Your task to perform on an android device: Do I have any events this weekend? Image 0: 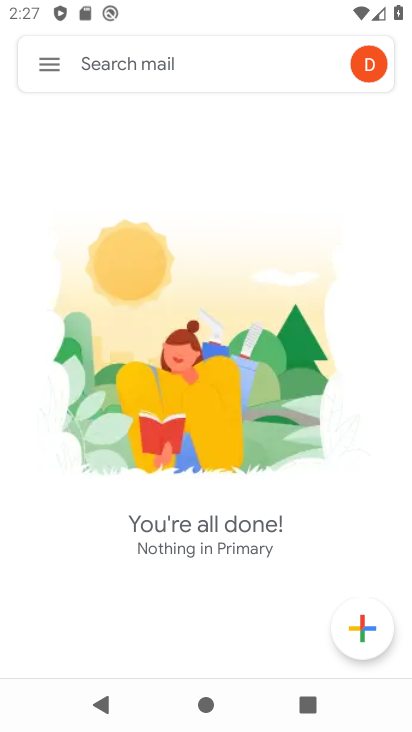
Step 0: press home button
Your task to perform on an android device: Do I have any events this weekend? Image 1: 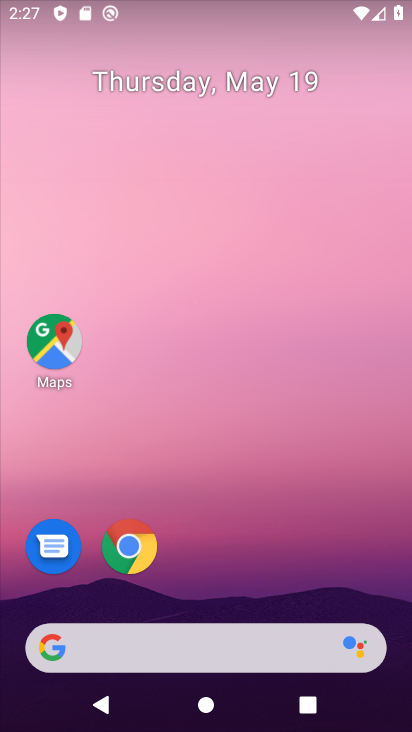
Step 1: drag from (153, 652) to (299, 180)
Your task to perform on an android device: Do I have any events this weekend? Image 2: 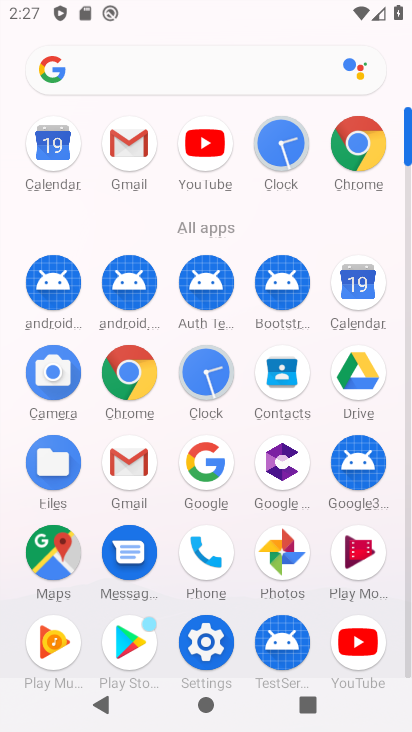
Step 2: click (60, 147)
Your task to perform on an android device: Do I have any events this weekend? Image 3: 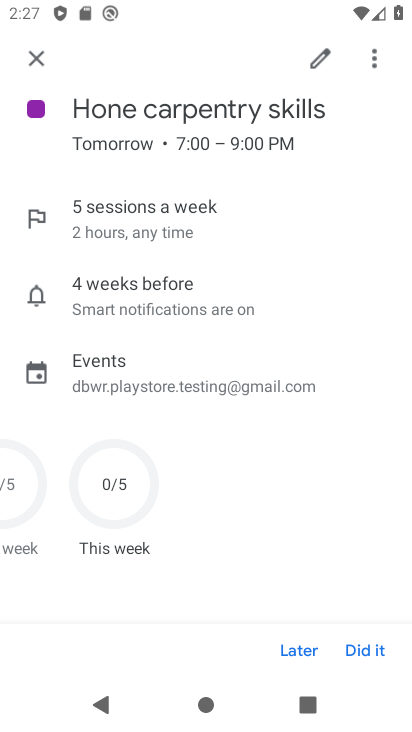
Step 3: click (40, 61)
Your task to perform on an android device: Do I have any events this weekend? Image 4: 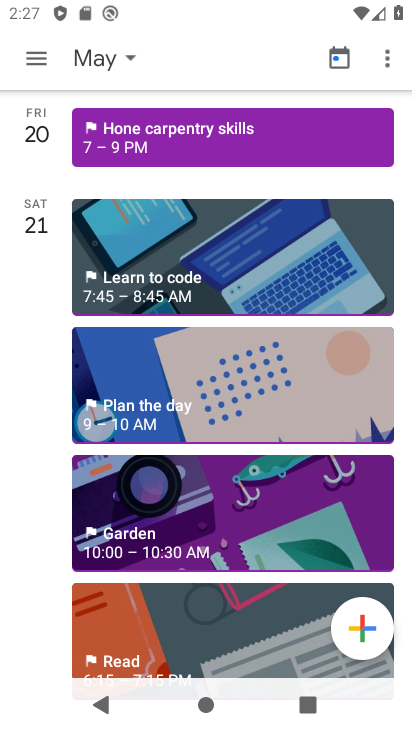
Step 4: click (94, 62)
Your task to perform on an android device: Do I have any events this weekend? Image 5: 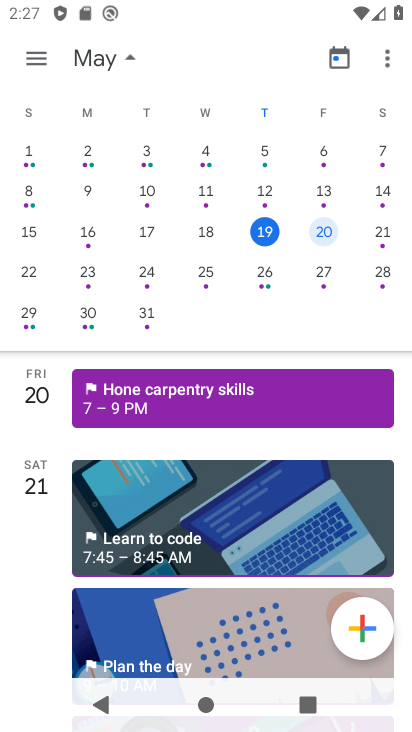
Step 5: click (378, 239)
Your task to perform on an android device: Do I have any events this weekend? Image 6: 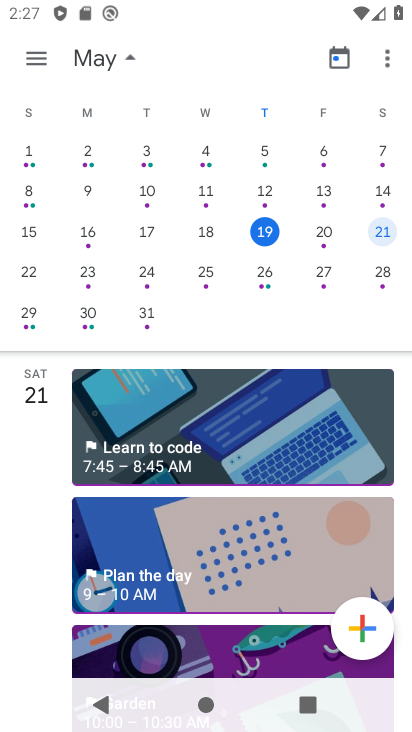
Step 6: click (37, 59)
Your task to perform on an android device: Do I have any events this weekend? Image 7: 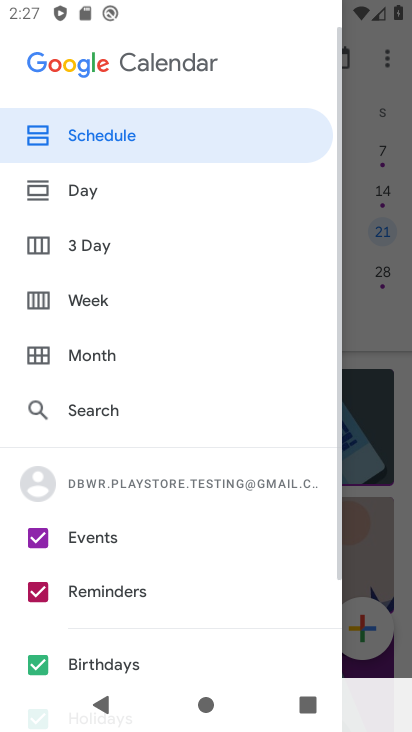
Step 7: click (94, 140)
Your task to perform on an android device: Do I have any events this weekend? Image 8: 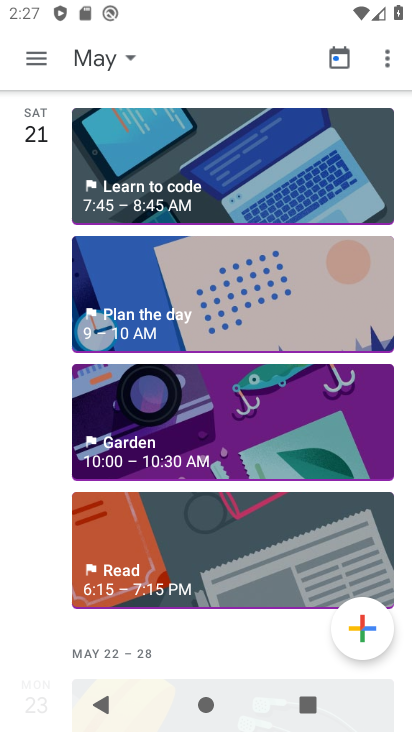
Step 8: click (169, 398)
Your task to perform on an android device: Do I have any events this weekend? Image 9: 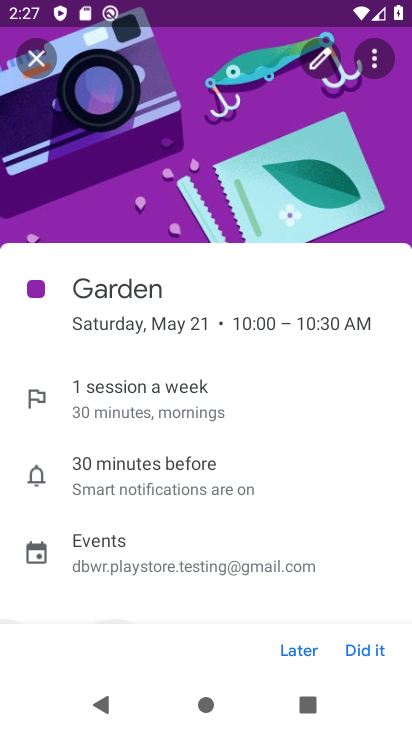
Step 9: task complete